Your task to perform on an android device: turn on wifi Image 0: 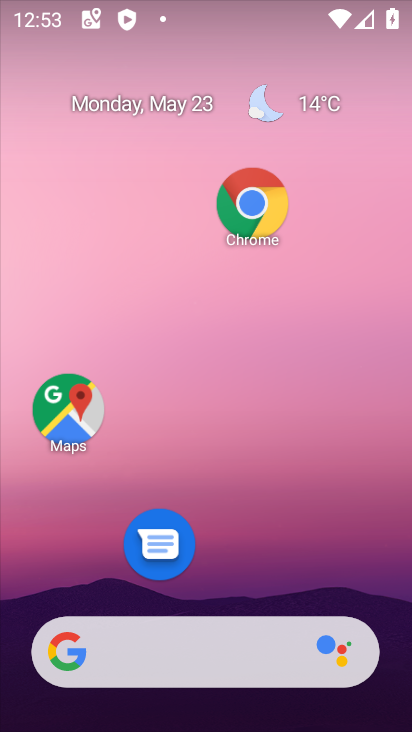
Step 0: drag from (267, 562) to (262, 190)
Your task to perform on an android device: turn on wifi Image 1: 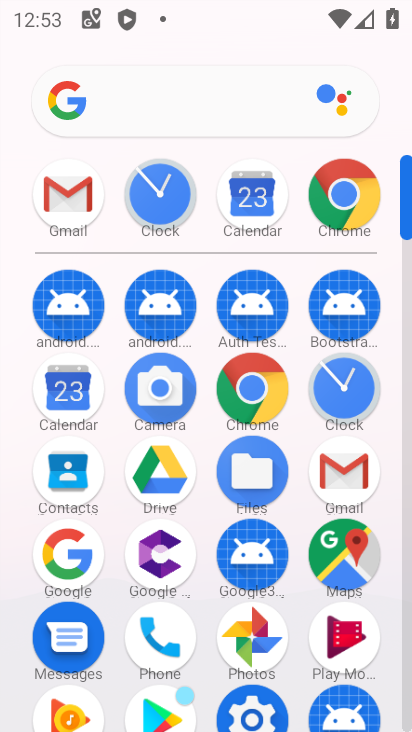
Step 1: click (252, 705)
Your task to perform on an android device: turn on wifi Image 2: 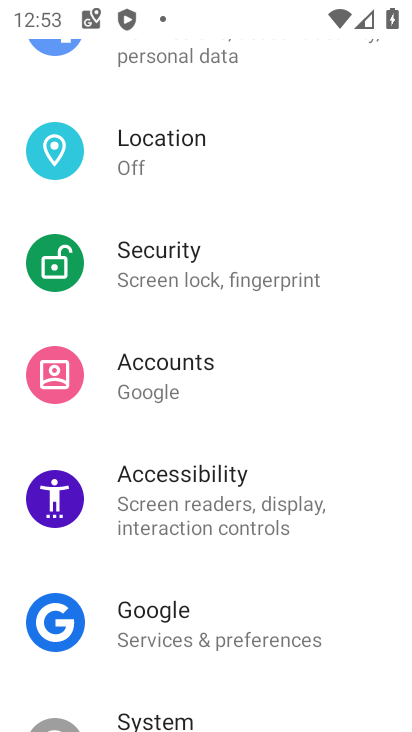
Step 2: drag from (257, 195) to (171, 660)
Your task to perform on an android device: turn on wifi Image 3: 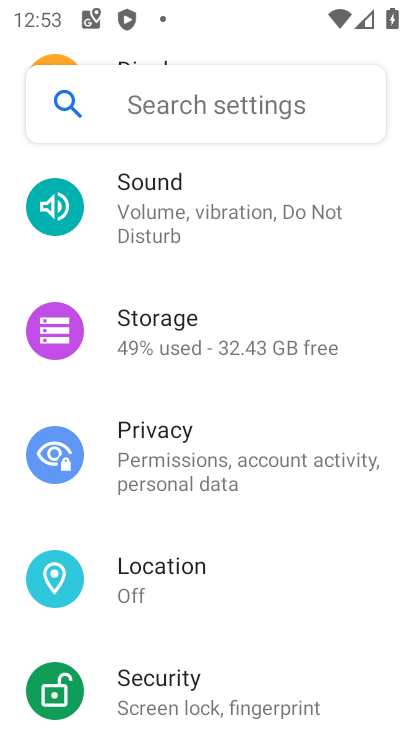
Step 3: drag from (228, 470) to (210, 677)
Your task to perform on an android device: turn on wifi Image 4: 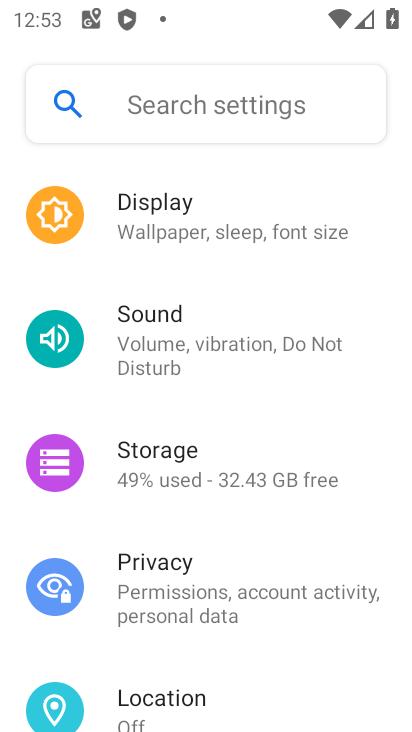
Step 4: drag from (233, 359) to (236, 645)
Your task to perform on an android device: turn on wifi Image 5: 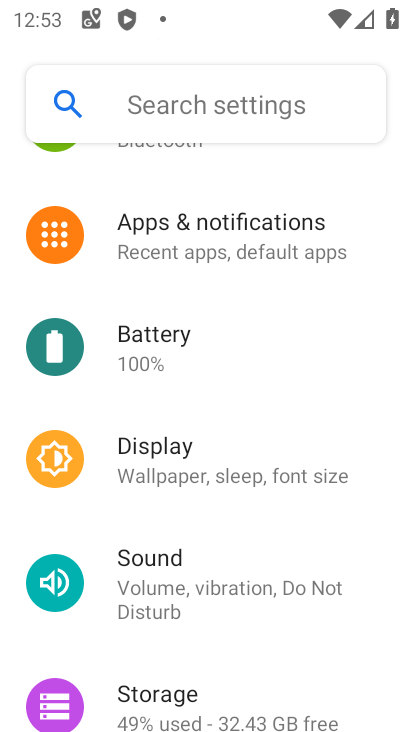
Step 5: drag from (226, 414) to (221, 645)
Your task to perform on an android device: turn on wifi Image 6: 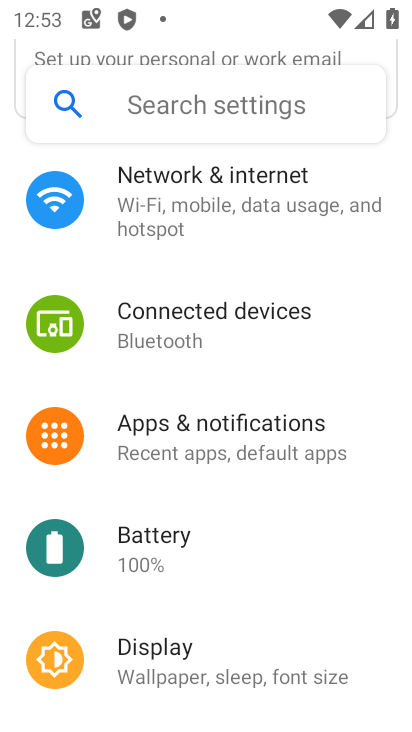
Step 6: drag from (240, 342) to (219, 618)
Your task to perform on an android device: turn on wifi Image 7: 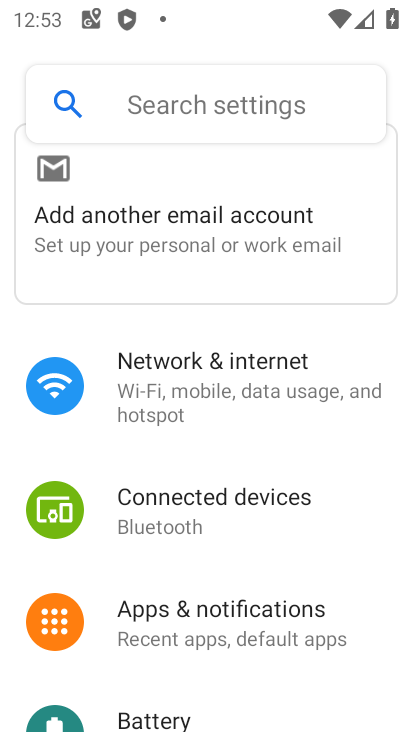
Step 7: click (209, 376)
Your task to perform on an android device: turn on wifi Image 8: 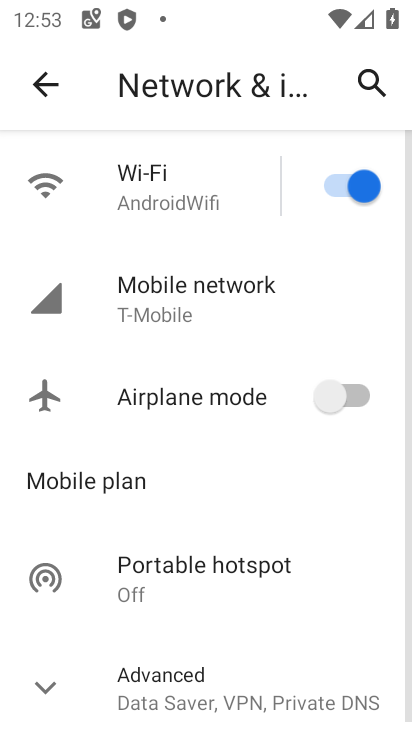
Step 8: click (213, 173)
Your task to perform on an android device: turn on wifi Image 9: 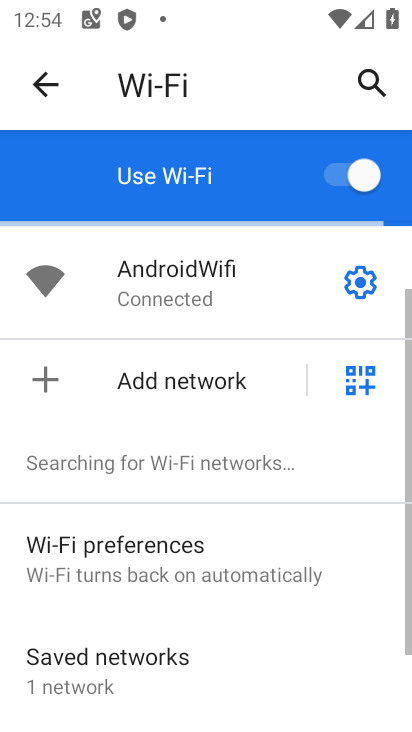
Step 9: click (362, 284)
Your task to perform on an android device: turn on wifi Image 10: 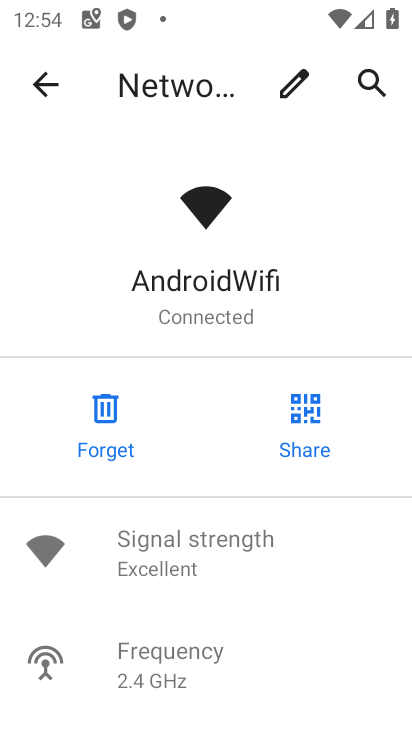
Step 10: task complete